Your task to perform on an android device: Search for a dining table on crateandbarrel.com Image 0: 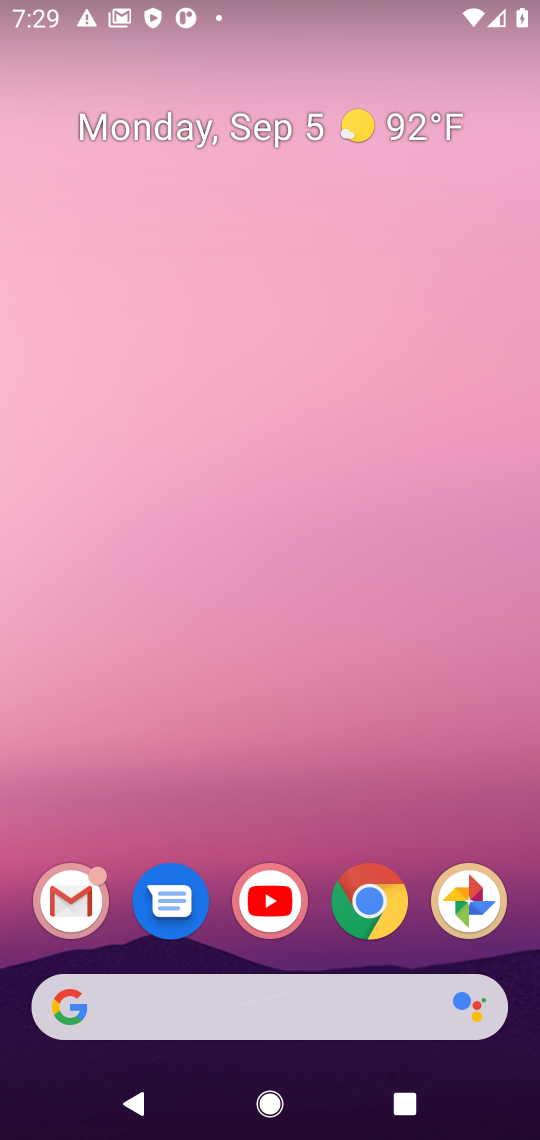
Step 0: click (348, 913)
Your task to perform on an android device: Search for a dining table on crateandbarrel.com Image 1: 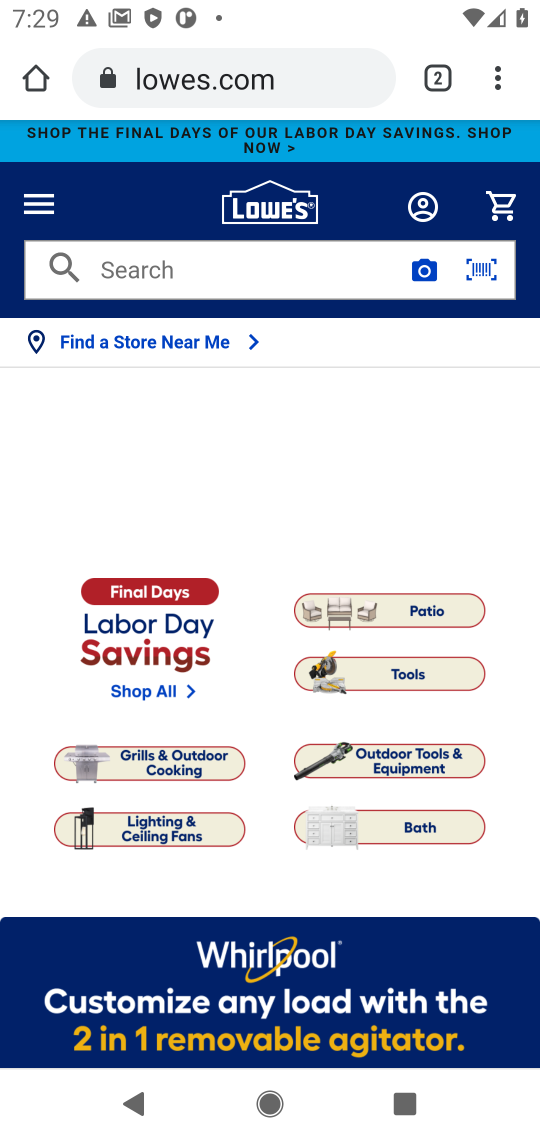
Step 1: click (249, 90)
Your task to perform on an android device: Search for a dining table on crateandbarrel.com Image 2: 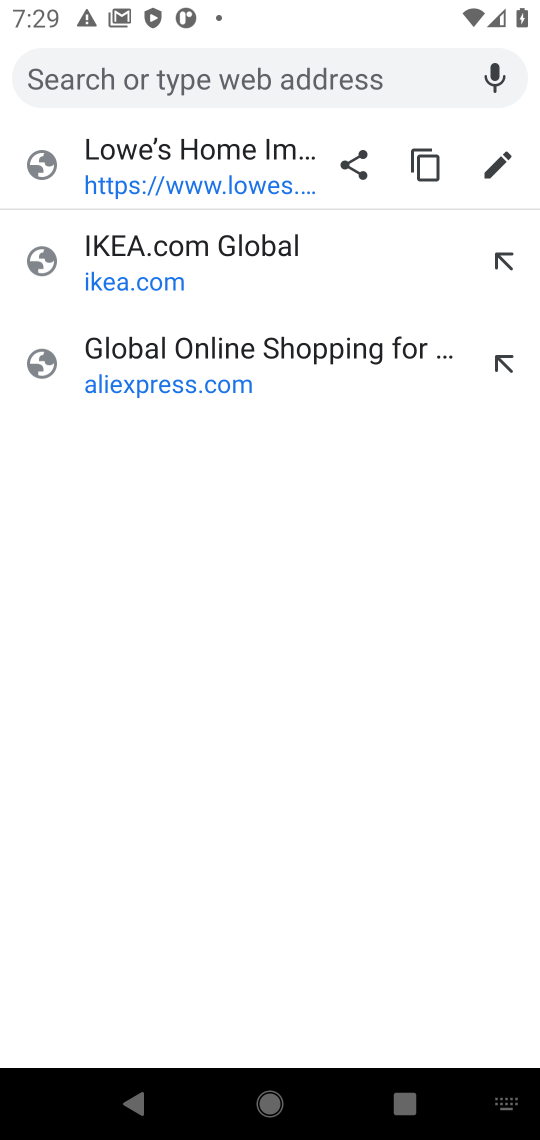
Step 2: type "createandbarrel.com"
Your task to perform on an android device: Search for a dining table on crateandbarrel.com Image 3: 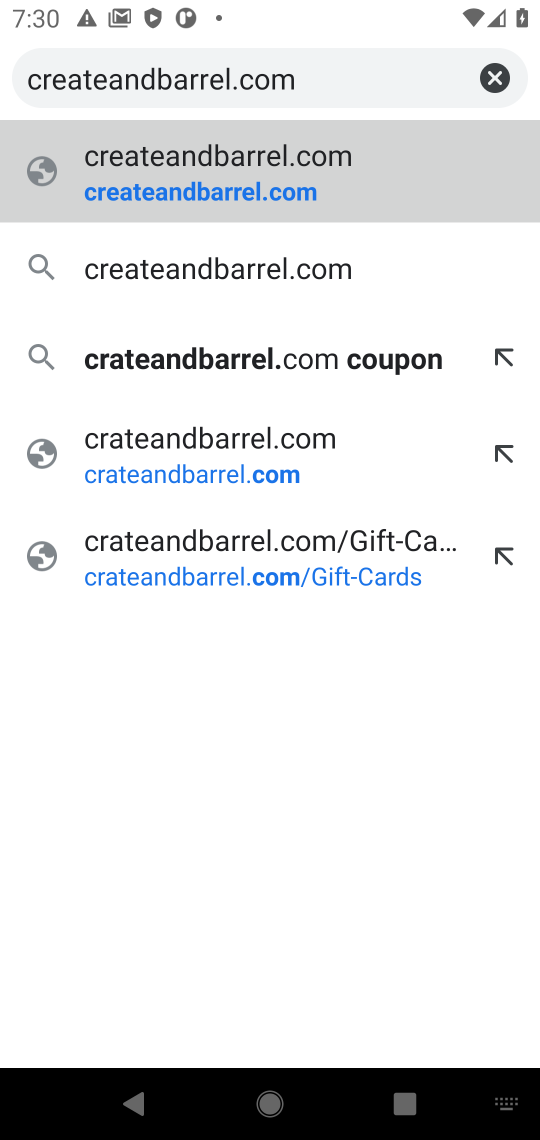
Step 3: click (297, 165)
Your task to perform on an android device: Search for a dining table on crateandbarrel.com Image 4: 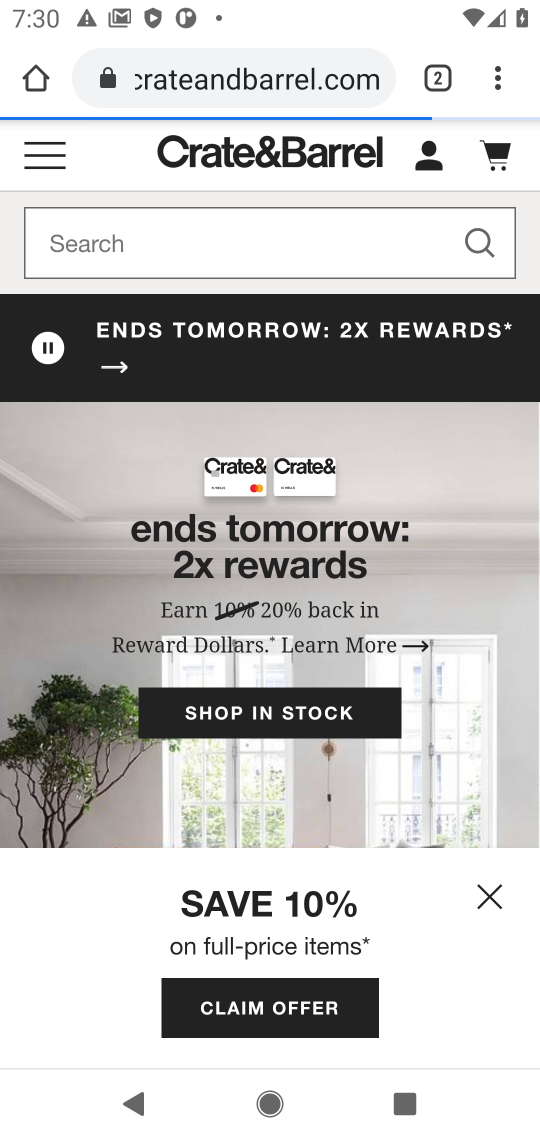
Step 4: click (255, 254)
Your task to perform on an android device: Search for a dining table on crateandbarrel.com Image 5: 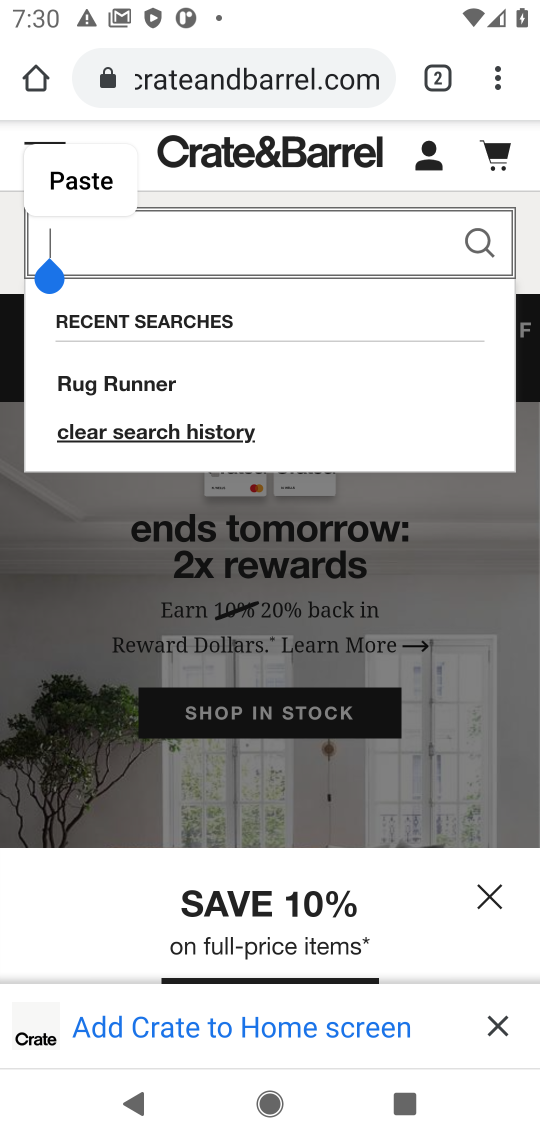
Step 5: type "dining table"
Your task to perform on an android device: Search for a dining table on crateandbarrel.com Image 6: 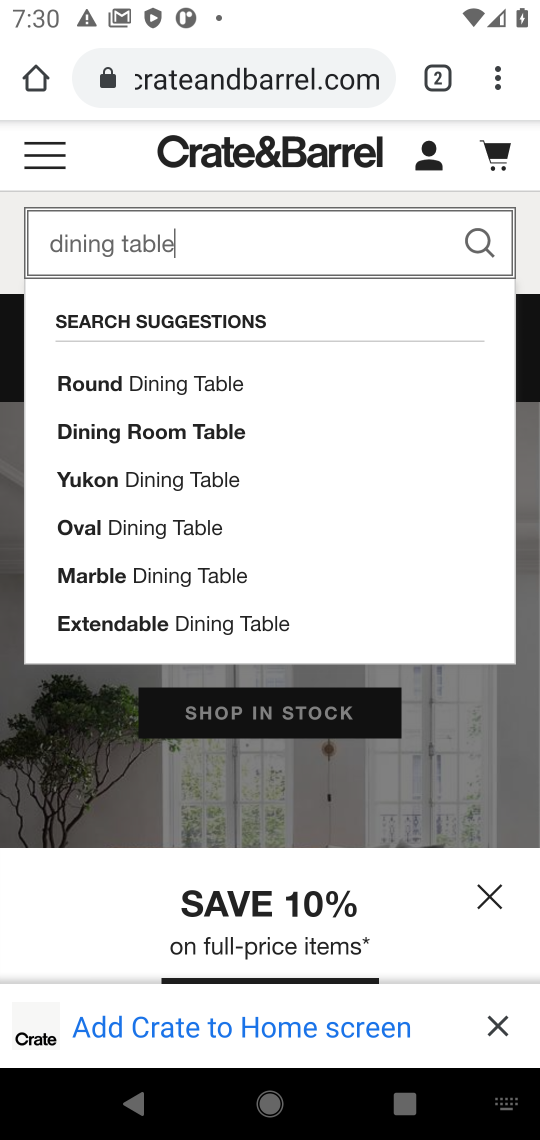
Step 6: click (156, 526)
Your task to perform on an android device: Search for a dining table on crateandbarrel.com Image 7: 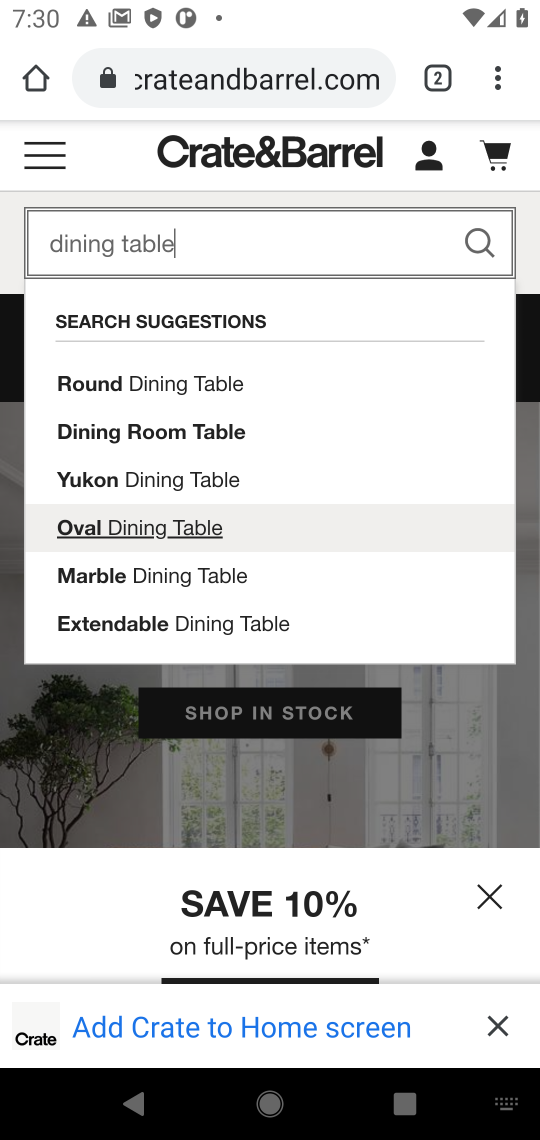
Step 7: task complete